Your task to perform on an android device: Open Chrome and go to the settings page Image 0: 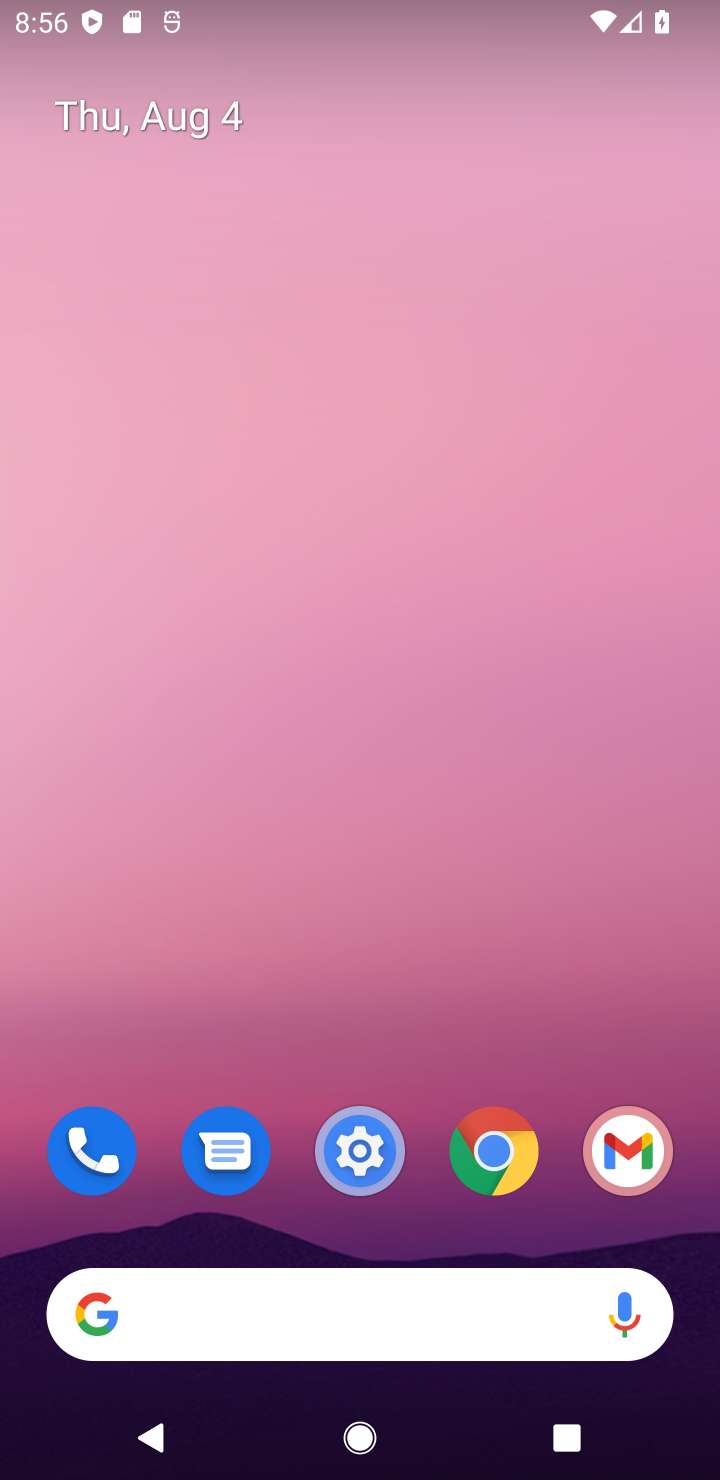
Step 0: click (478, 1130)
Your task to perform on an android device: Open Chrome and go to the settings page Image 1: 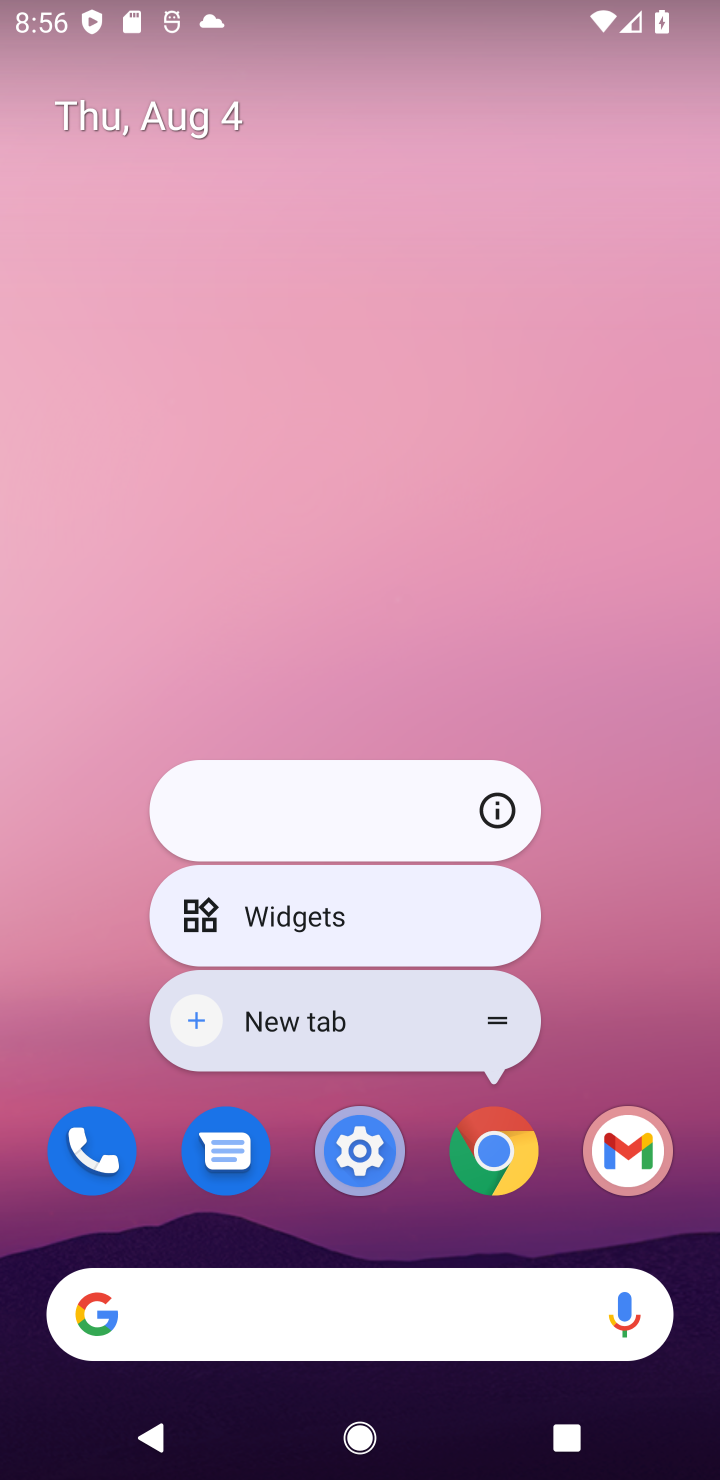
Step 1: click (511, 1145)
Your task to perform on an android device: Open Chrome and go to the settings page Image 2: 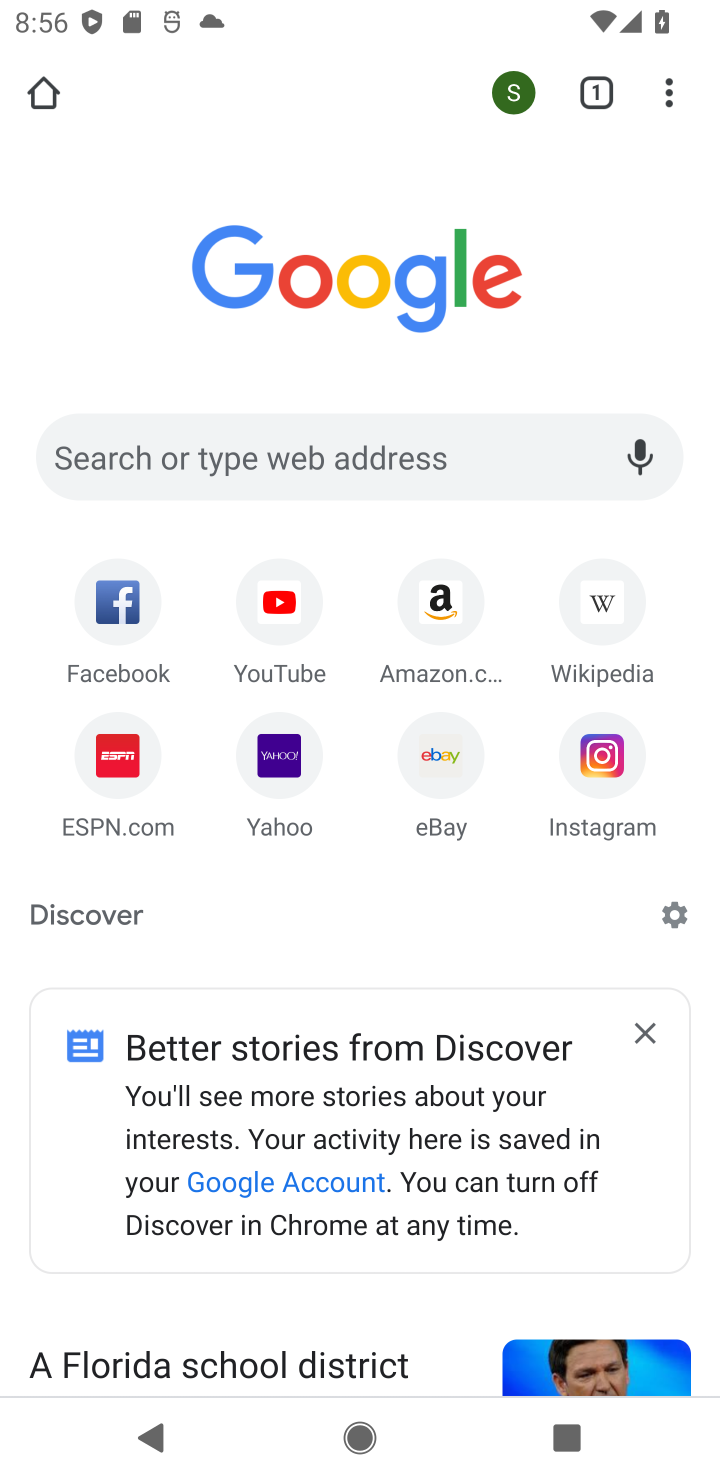
Step 2: click (654, 88)
Your task to perform on an android device: Open Chrome and go to the settings page Image 3: 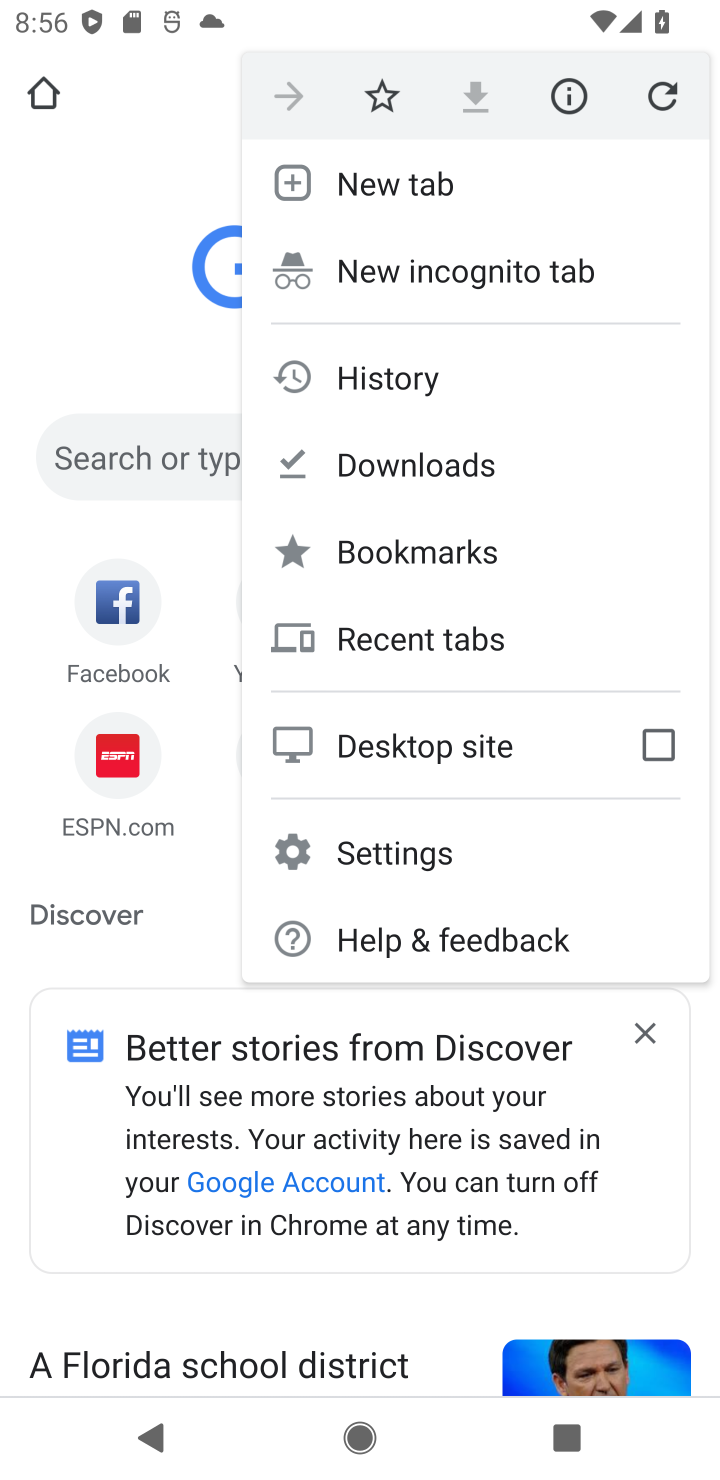
Step 3: click (455, 838)
Your task to perform on an android device: Open Chrome and go to the settings page Image 4: 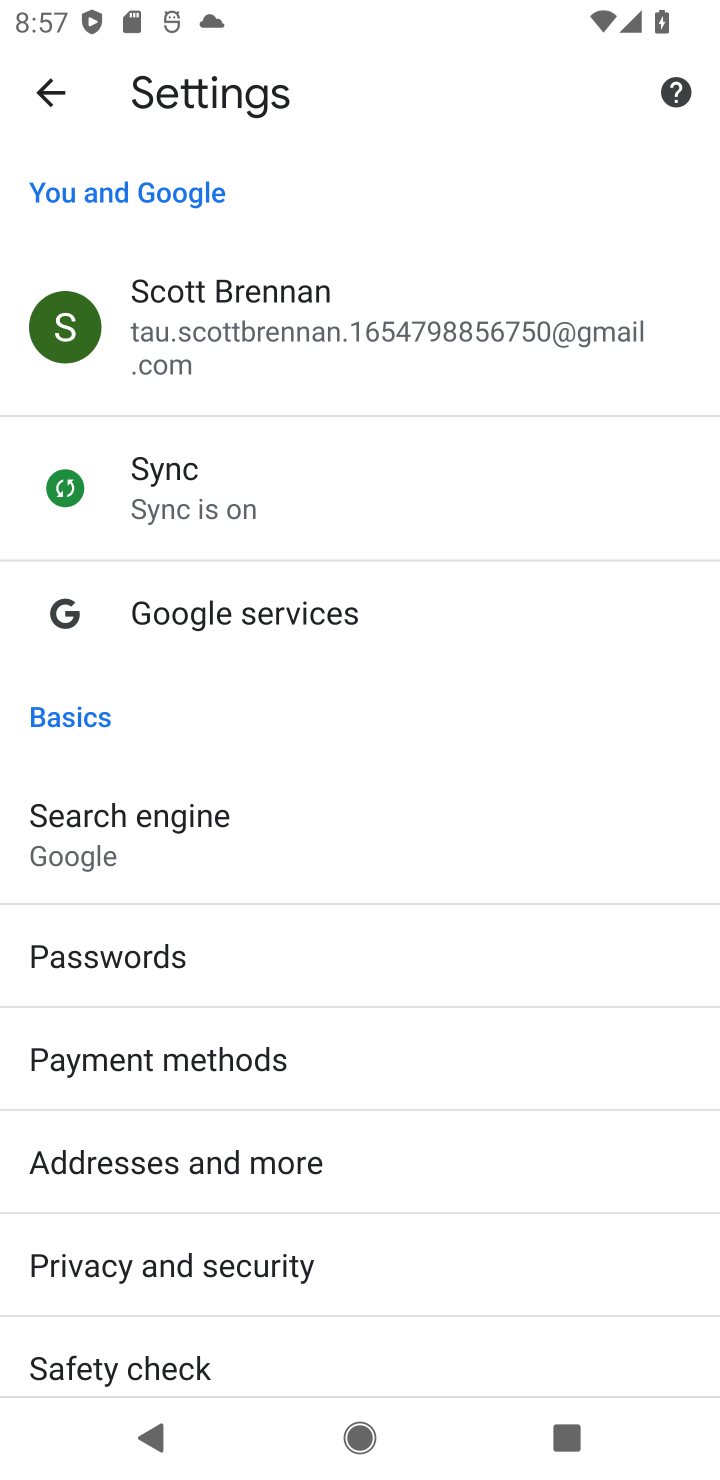
Step 4: task complete